Your task to perform on an android device: open the mobile data screen to see how much data has been used Image 0: 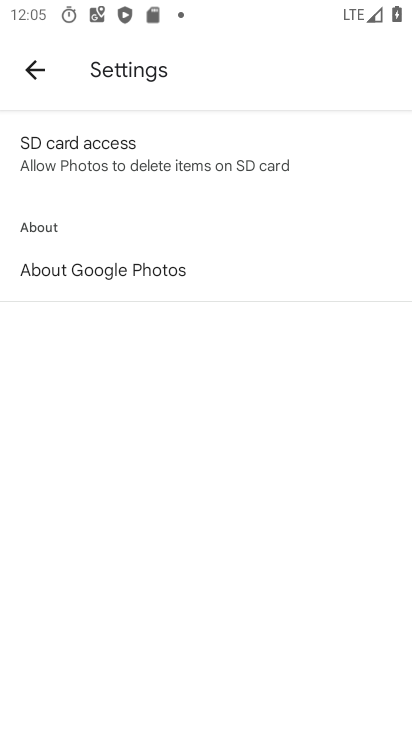
Step 0: press home button
Your task to perform on an android device: open the mobile data screen to see how much data has been used Image 1: 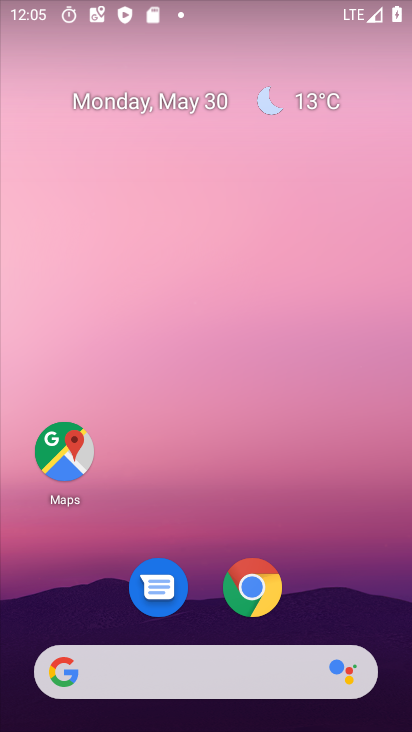
Step 1: drag from (348, 565) to (392, 7)
Your task to perform on an android device: open the mobile data screen to see how much data has been used Image 2: 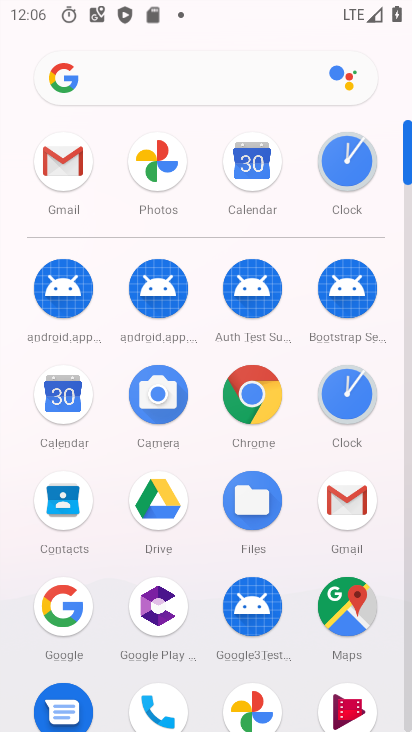
Step 2: drag from (208, 588) to (236, 109)
Your task to perform on an android device: open the mobile data screen to see how much data has been used Image 3: 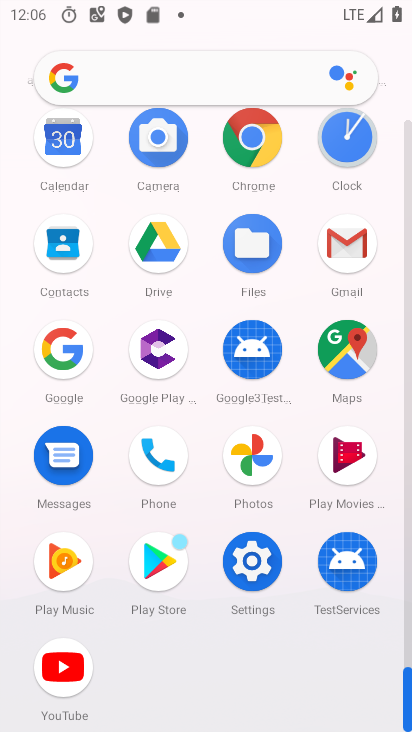
Step 3: click (243, 559)
Your task to perform on an android device: open the mobile data screen to see how much data has been used Image 4: 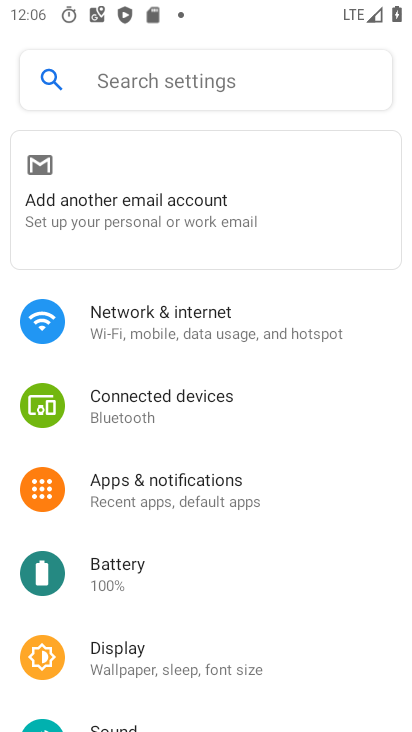
Step 4: click (174, 328)
Your task to perform on an android device: open the mobile data screen to see how much data has been used Image 5: 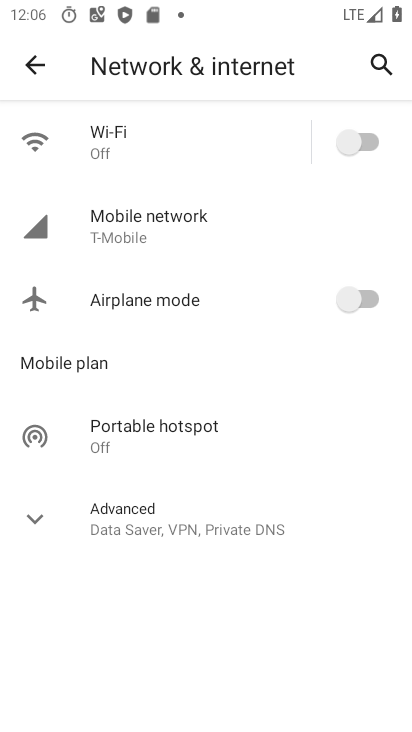
Step 5: click (195, 217)
Your task to perform on an android device: open the mobile data screen to see how much data has been used Image 6: 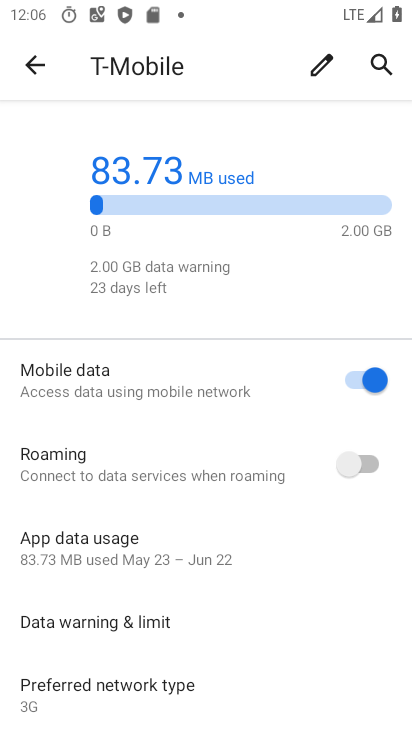
Step 6: task complete